Your task to perform on an android device: uninstall "Truecaller" Image 0: 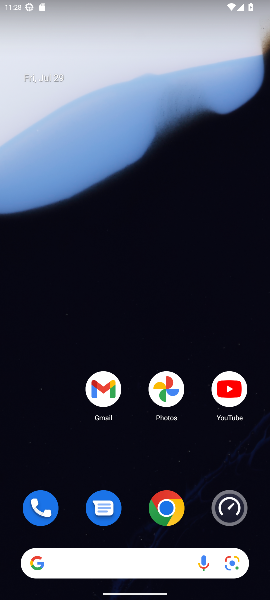
Step 0: drag from (148, 542) to (135, 146)
Your task to perform on an android device: uninstall "Truecaller" Image 1: 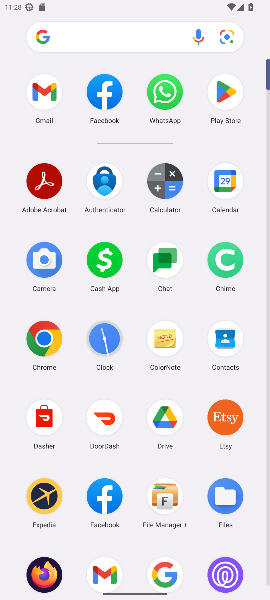
Step 1: click (225, 86)
Your task to perform on an android device: uninstall "Truecaller" Image 2: 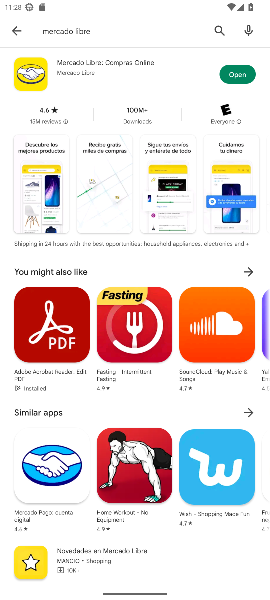
Step 2: click (221, 25)
Your task to perform on an android device: uninstall "Truecaller" Image 3: 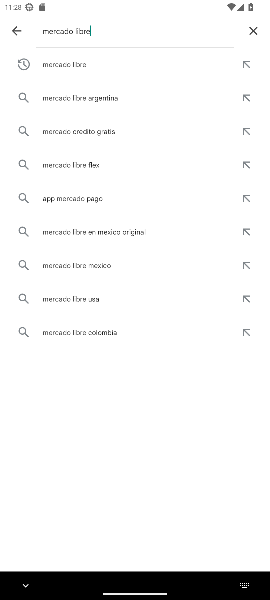
Step 3: click (256, 25)
Your task to perform on an android device: uninstall "Truecaller" Image 4: 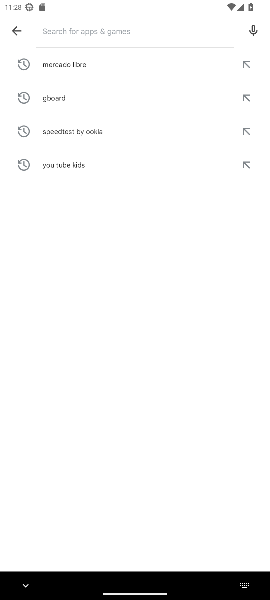
Step 4: click (207, 34)
Your task to perform on an android device: uninstall "Truecaller" Image 5: 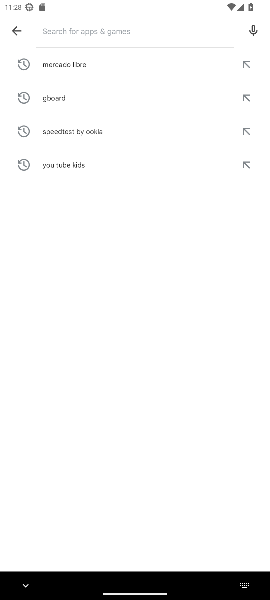
Step 5: type "truecaller"
Your task to perform on an android device: uninstall "Truecaller" Image 6: 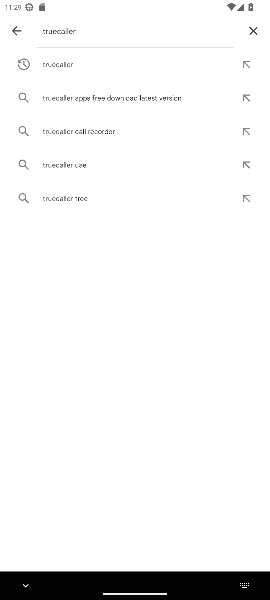
Step 6: click (64, 66)
Your task to perform on an android device: uninstall "Truecaller" Image 7: 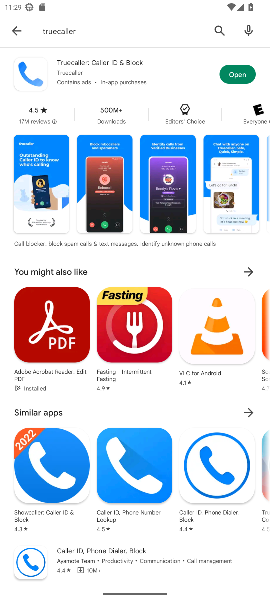
Step 7: task complete